Your task to perform on an android device: View the shopping cart on bestbuy.com. Search for "macbook pro 15 inch" on bestbuy.com, select the first entry, add it to the cart, then select checkout. Image 0: 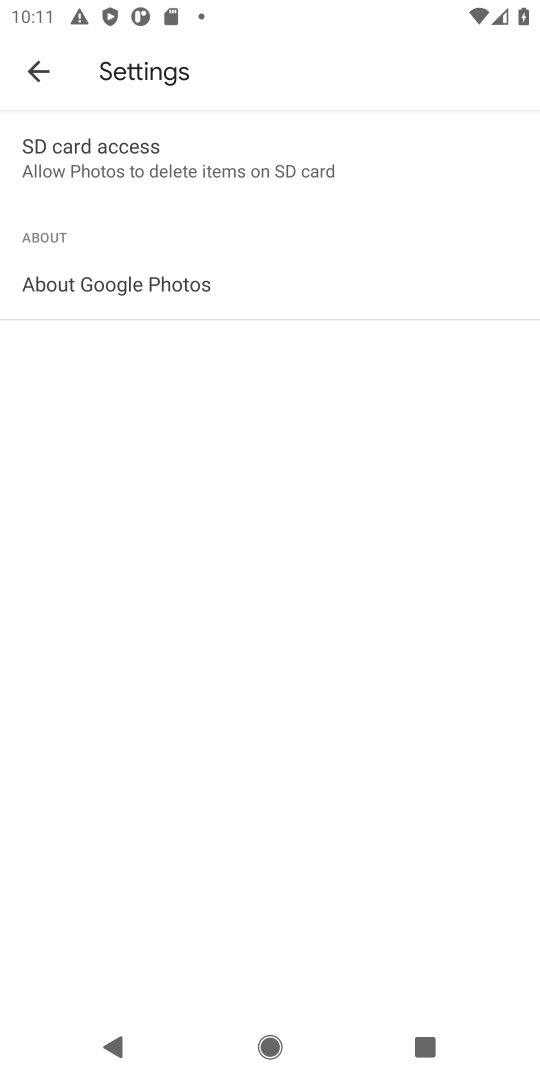
Step 0: press home button
Your task to perform on an android device: View the shopping cart on bestbuy.com. Search for "macbook pro 15 inch" on bestbuy.com, select the first entry, add it to the cart, then select checkout. Image 1: 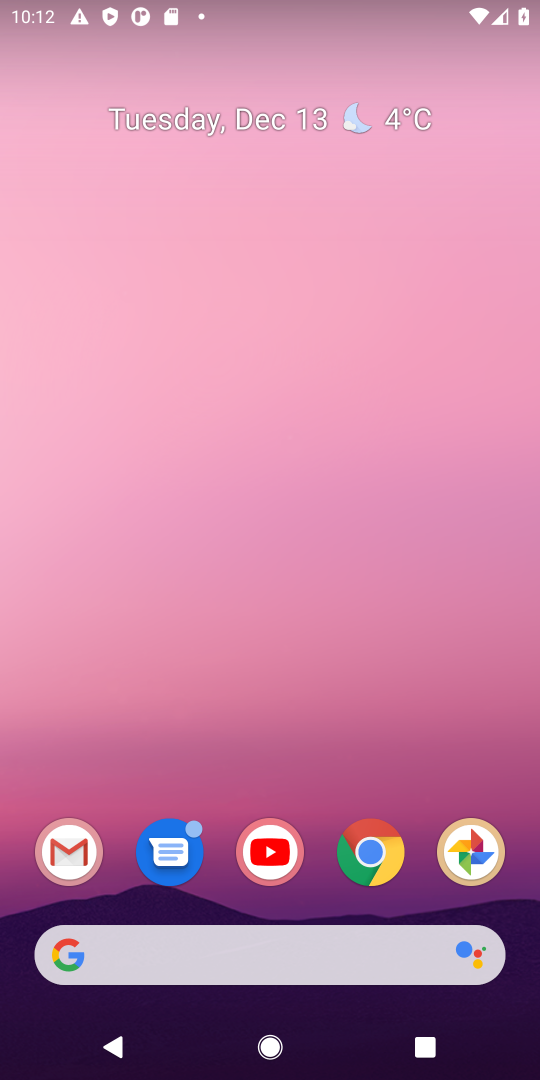
Step 1: click (109, 951)
Your task to perform on an android device: View the shopping cart on bestbuy.com. Search for "macbook pro 15 inch" on bestbuy.com, select the first entry, add it to the cart, then select checkout. Image 2: 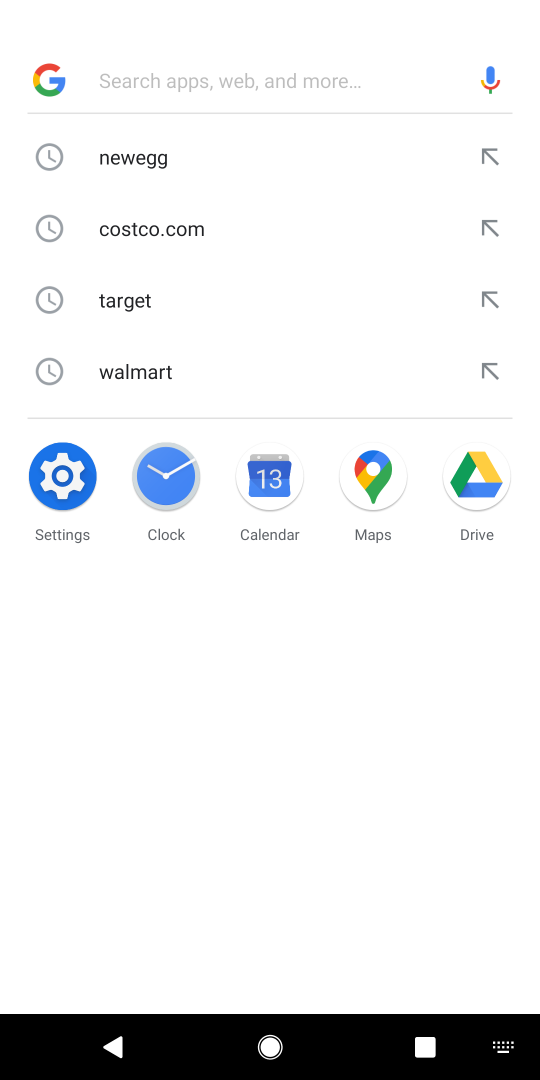
Step 2: type "bestbuy.com"
Your task to perform on an android device: View the shopping cart on bestbuy.com. Search for "macbook pro 15 inch" on bestbuy.com, select the first entry, add it to the cart, then select checkout. Image 3: 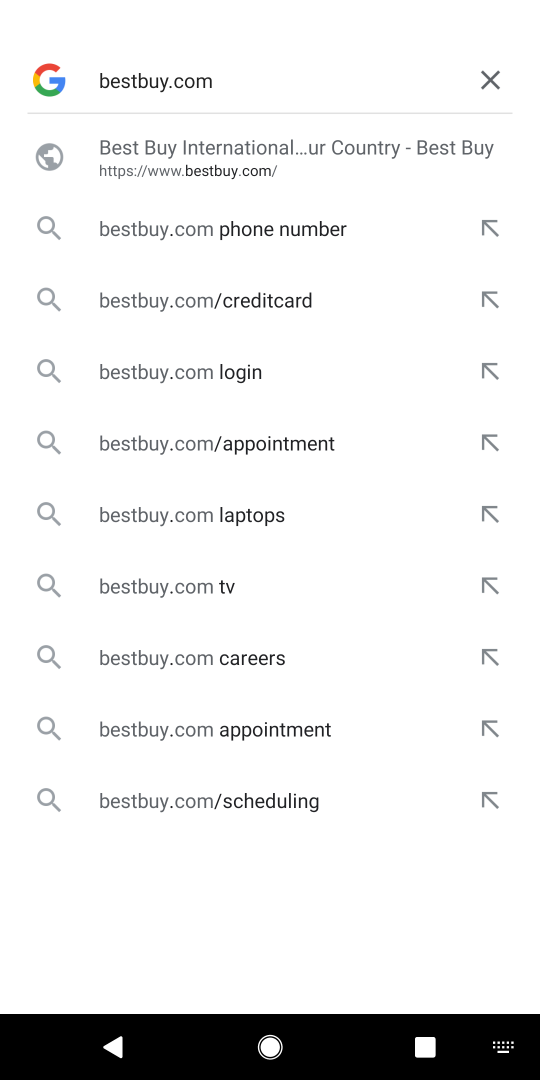
Step 3: press enter
Your task to perform on an android device: View the shopping cart on bestbuy.com. Search for "macbook pro 15 inch" on bestbuy.com, select the first entry, add it to the cart, then select checkout. Image 4: 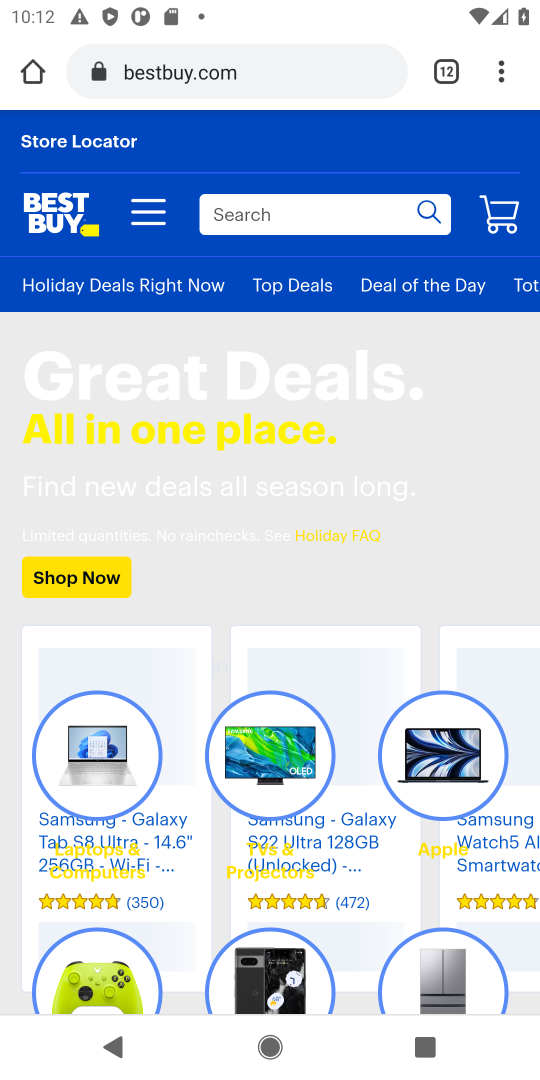
Step 4: click (499, 217)
Your task to perform on an android device: View the shopping cart on bestbuy.com. Search for "macbook pro 15 inch" on bestbuy.com, select the first entry, add it to the cart, then select checkout. Image 5: 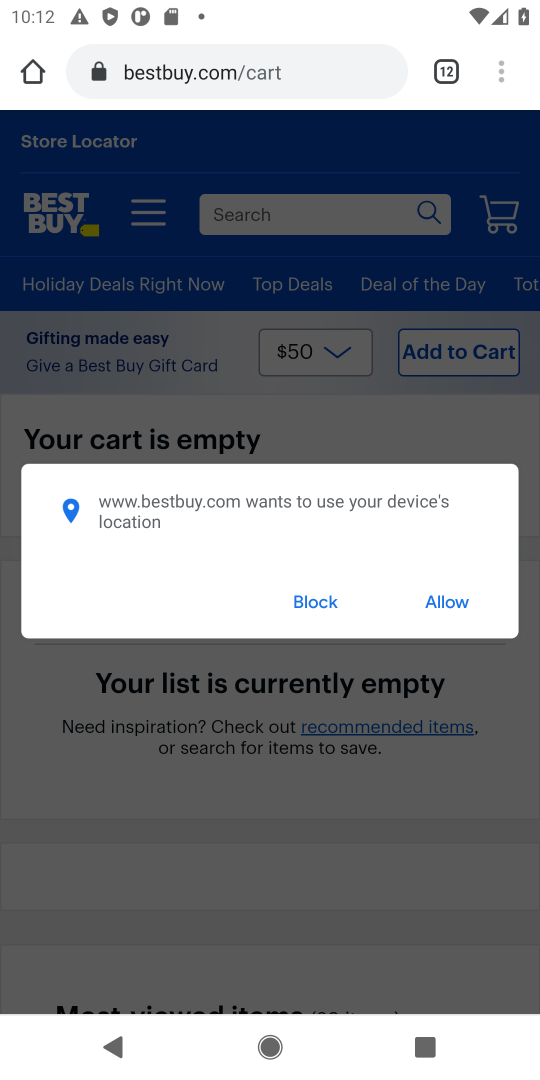
Step 5: click (303, 608)
Your task to perform on an android device: View the shopping cart on bestbuy.com. Search for "macbook pro 15 inch" on bestbuy.com, select the first entry, add it to the cart, then select checkout. Image 6: 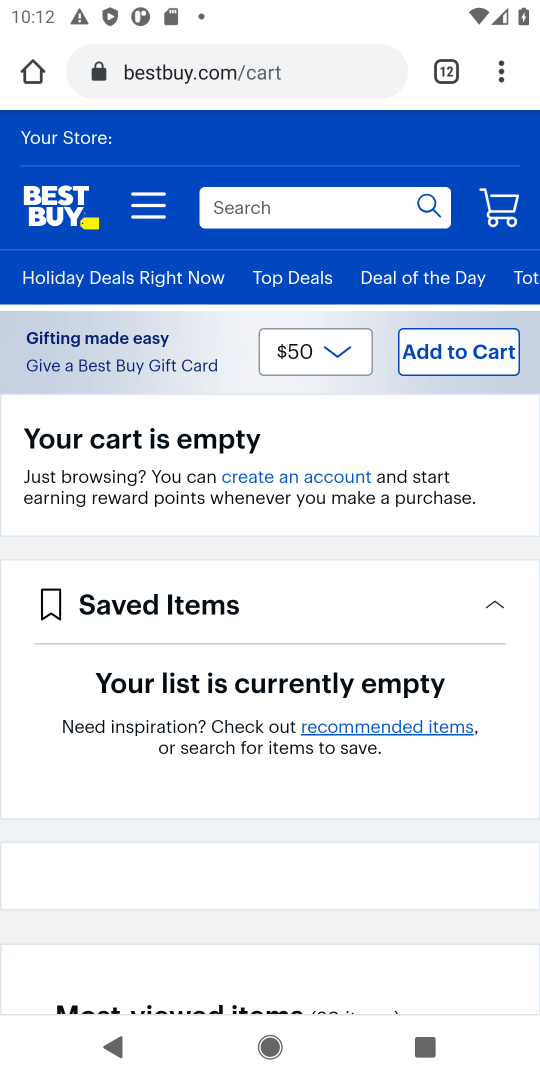
Step 6: click (281, 213)
Your task to perform on an android device: View the shopping cart on bestbuy.com. Search for "macbook pro 15 inch" on bestbuy.com, select the first entry, add it to the cart, then select checkout. Image 7: 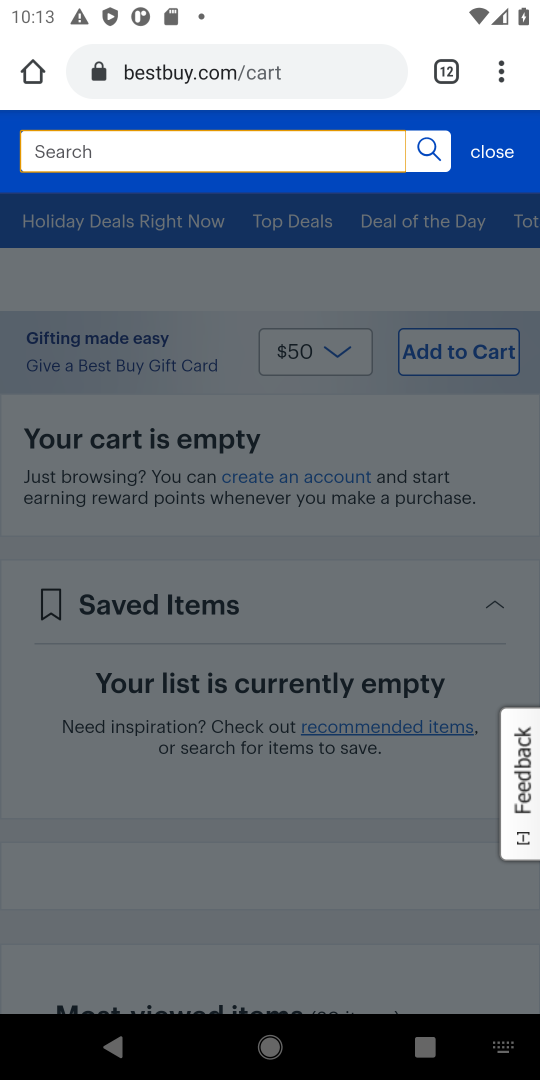
Step 7: type "macbook pro 15 inch"
Your task to perform on an android device: View the shopping cart on bestbuy.com. Search for "macbook pro 15 inch" on bestbuy.com, select the first entry, add it to the cart, then select checkout. Image 8: 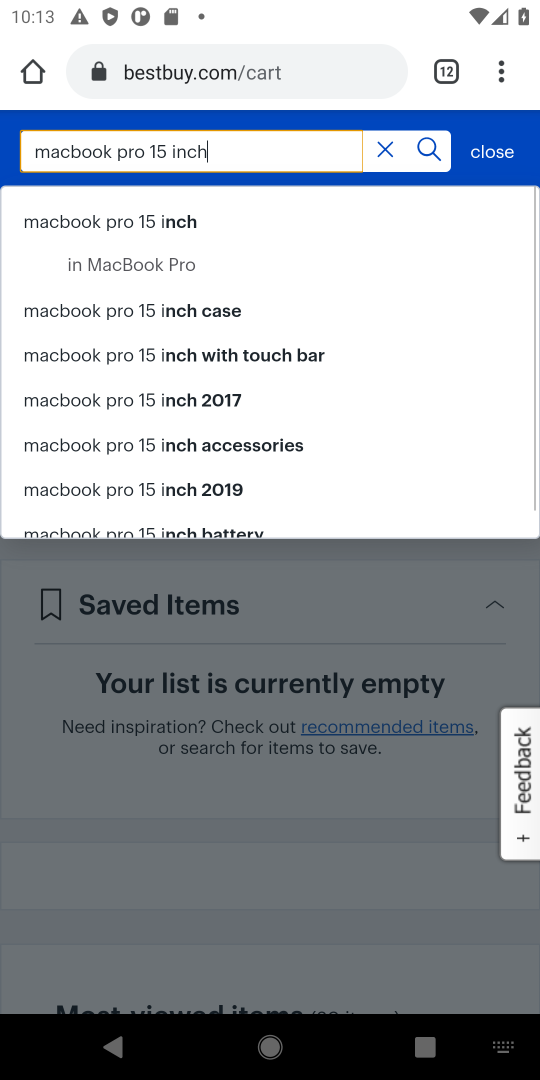
Step 8: press enter
Your task to perform on an android device: View the shopping cart on bestbuy.com. Search for "macbook pro 15 inch" on bestbuy.com, select the first entry, add it to the cart, then select checkout. Image 9: 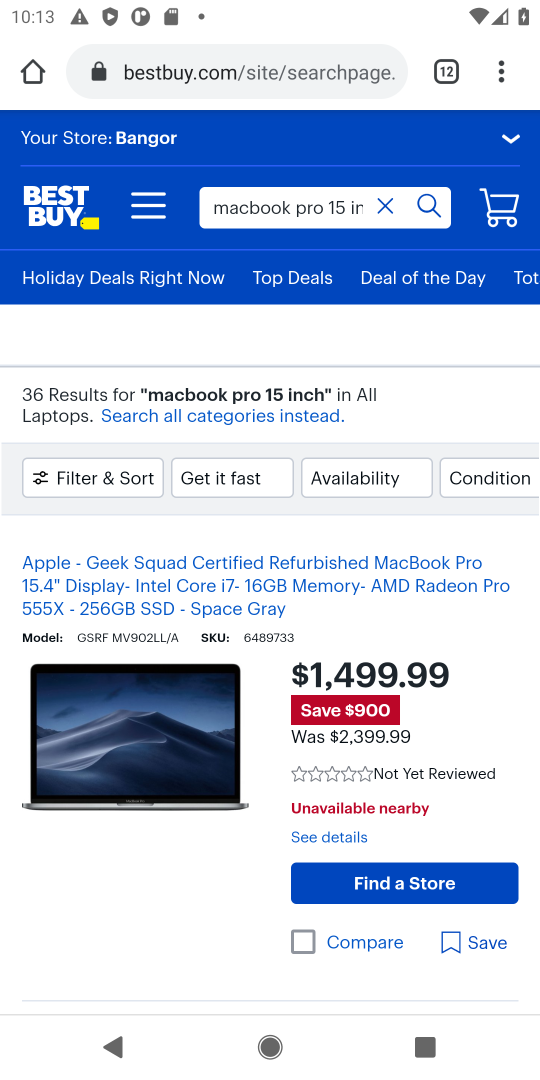
Step 9: drag from (224, 866) to (258, 556)
Your task to perform on an android device: View the shopping cart on bestbuy.com. Search for "macbook pro 15 inch" on bestbuy.com, select the first entry, add it to the cart, then select checkout. Image 10: 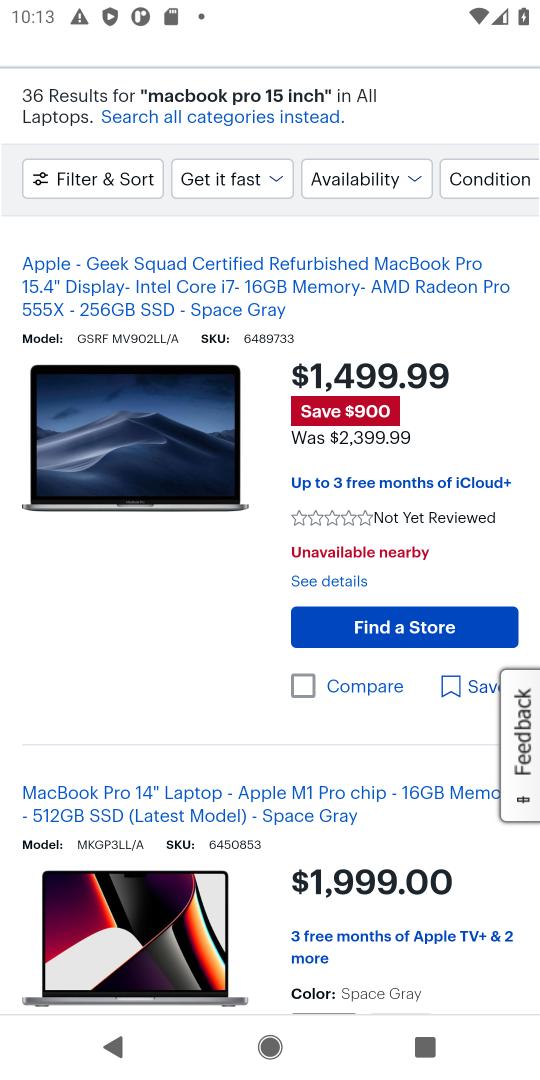
Step 10: drag from (273, 816) to (284, 327)
Your task to perform on an android device: View the shopping cart on bestbuy.com. Search for "macbook pro 15 inch" on bestbuy.com, select the first entry, add it to the cart, then select checkout. Image 11: 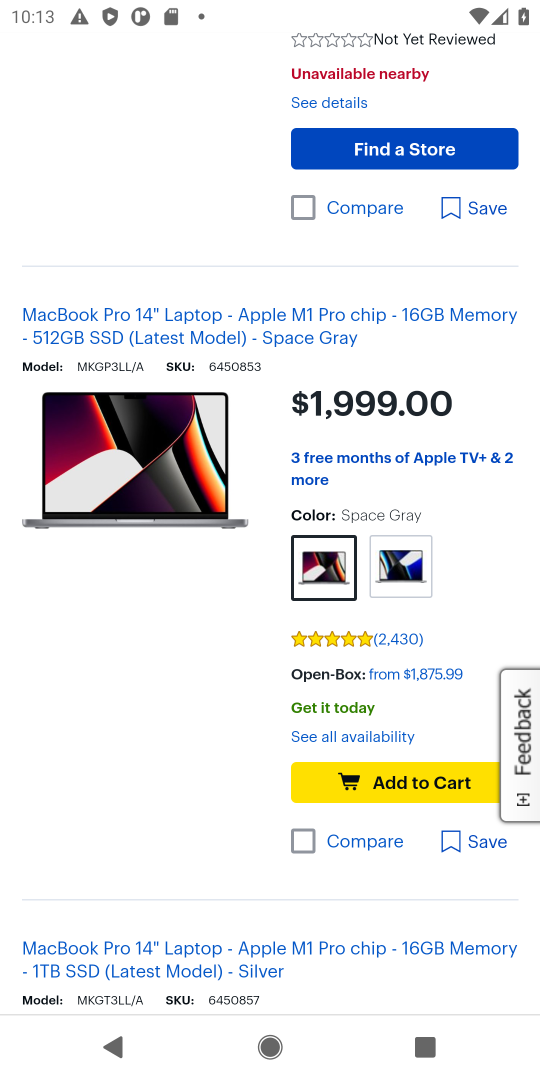
Step 11: drag from (251, 716) to (292, 341)
Your task to perform on an android device: View the shopping cart on bestbuy.com. Search for "macbook pro 15 inch" on bestbuy.com, select the first entry, add it to the cart, then select checkout. Image 12: 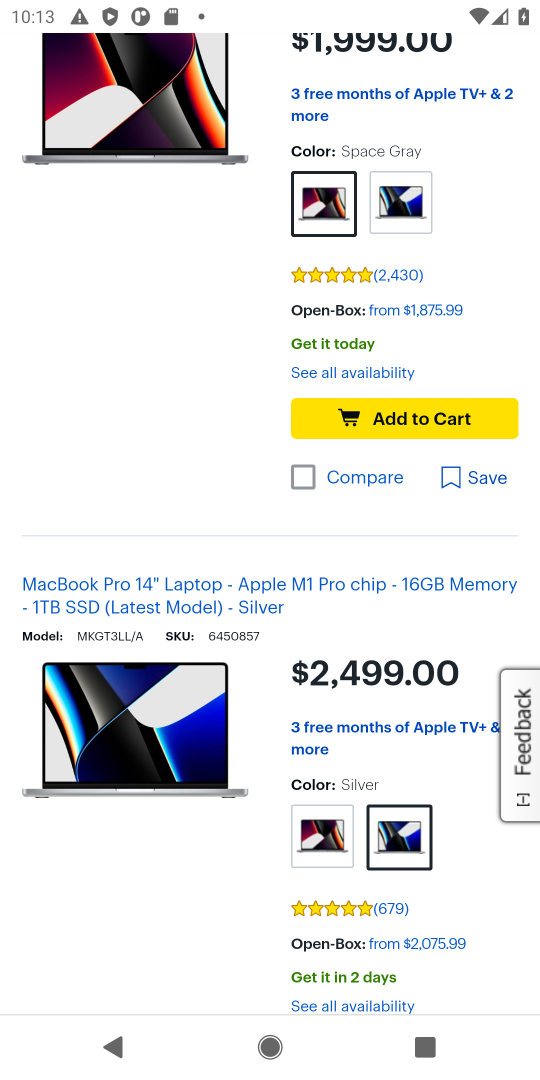
Step 12: drag from (241, 926) to (297, 510)
Your task to perform on an android device: View the shopping cart on bestbuy.com. Search for "macbook pro 15 inch" on bestbuy.com, select the first entry, add it to the cart, then select checkout. Image 13: 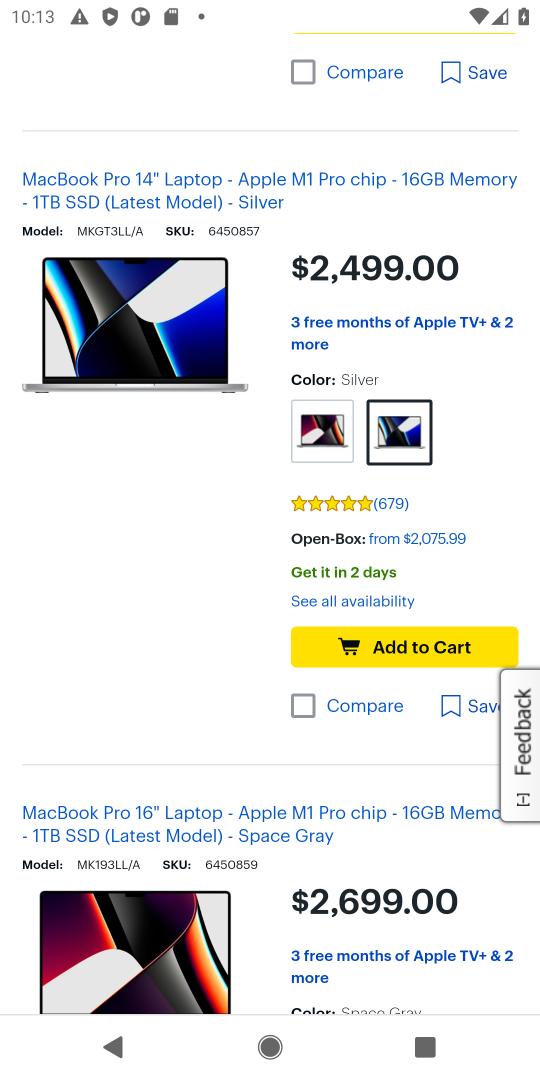
Step 13: drag from (236, 846) to (237, 571)
Your task to perform on an android device: View the shopping cart on bestbuy.com. Search for "macbook pro 15 inch" on bestbuy.com, select the first entry, add it to the cart, then select checkout. Image 14: 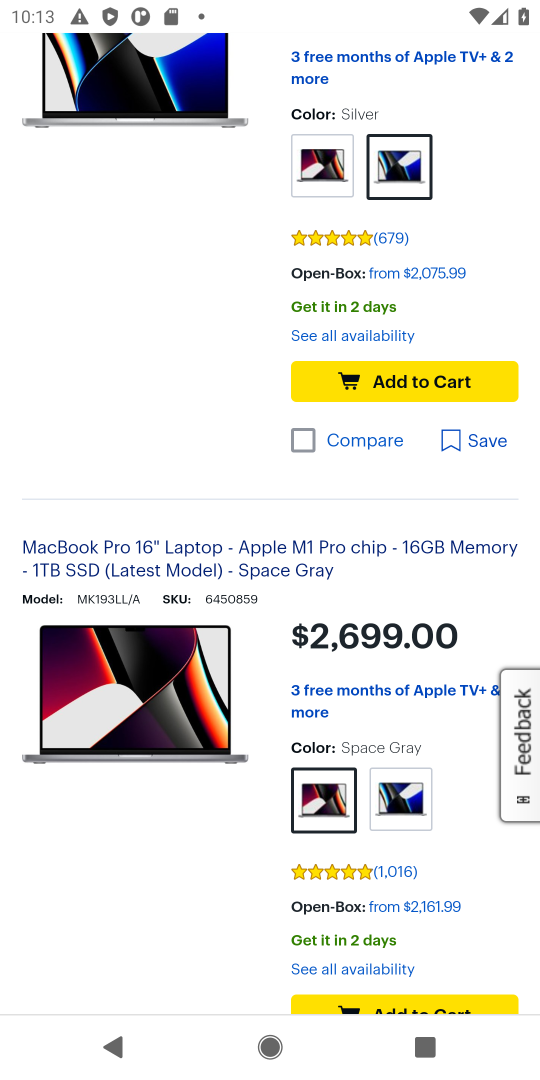
Step 14: drag from (229, 786) to (242, 227)
Your task to perform on an android device: View the shopping cart on bestbuy.com. Search for "macbook pro 15 inch" on bestbuy.com, select the first entry, add it to the cart, then select checkout. Image 15: 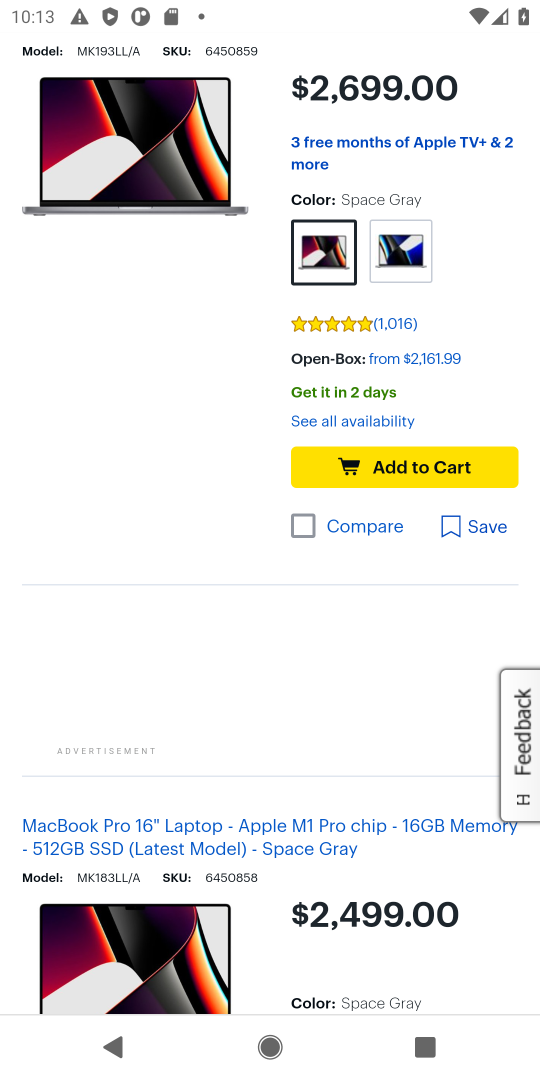
Step 15: drag from (238, 837) to (239, 394)
Your task to perform on an android device: View the shopping cart on bestbuy.com. Search for "macbook pro 15 inch" on bestbuy.com, select the first entry, add it to the cart, then select checkout. Image 16: 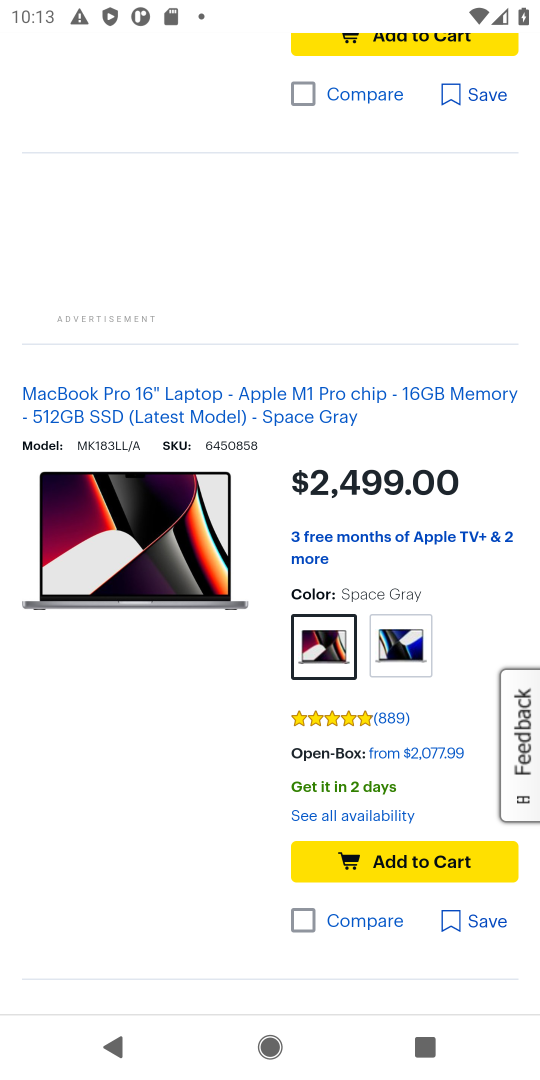
Step 16: drag from (209, 891) to (267, 455)
Your task to perform on an android device: View the shopping cart on bestbuy.com. Search for "macbook pro 15 inch" on bestbuy.com, select the first entry, add it to the cart, then select checkout. Image 17: 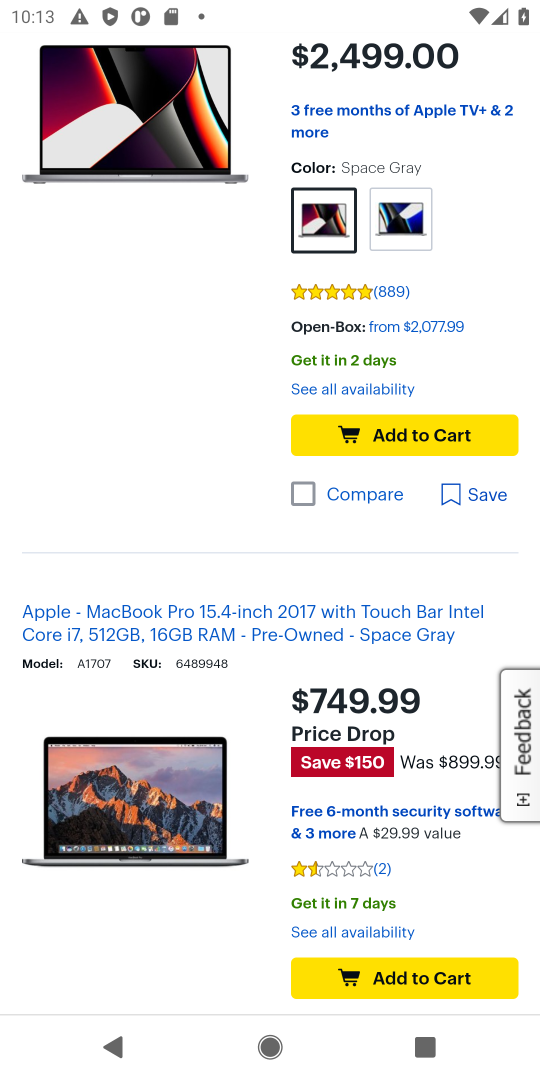
Step 17: drag from (244, 922) to (257, 607)
Your task to perform on an android device: View the shopping cart on bestbuy.com. Search for "macbook pro 15 inch" on bestbuy.com, select the first entry, add it to the cart, then select checkout. Image 18: 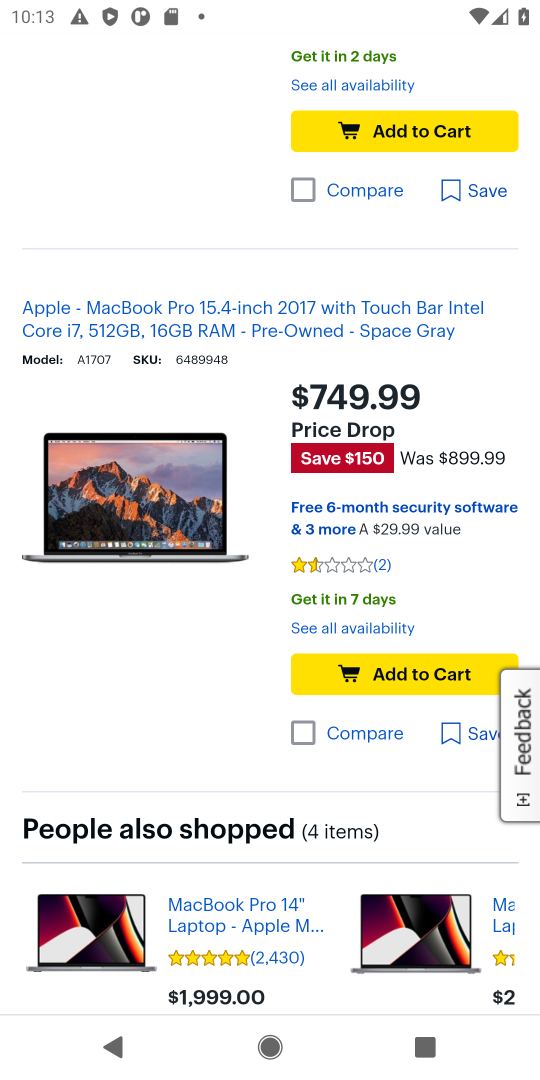
Step 18: click (384, 679)
Your task to perform on an android device: View the shopping cart on bestbuy.com. Search for "macbook pro 15 inch" on bestbuy.com, select the first entry, add it to the cart, then select checkout. Image 19: 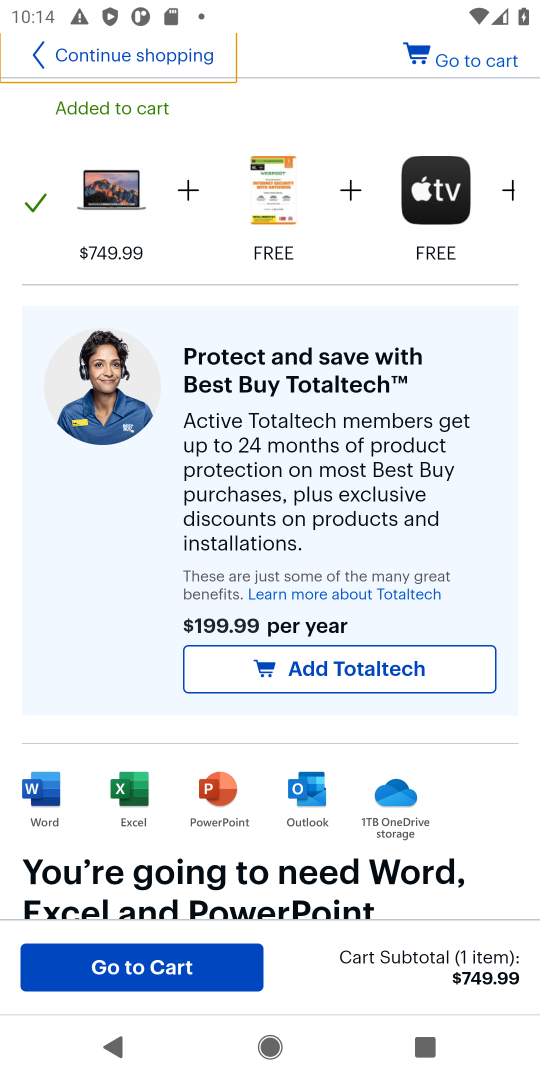
Step 19: task complete